Your task to perform on an android device: move a message to another label in the gmail app Image 0: 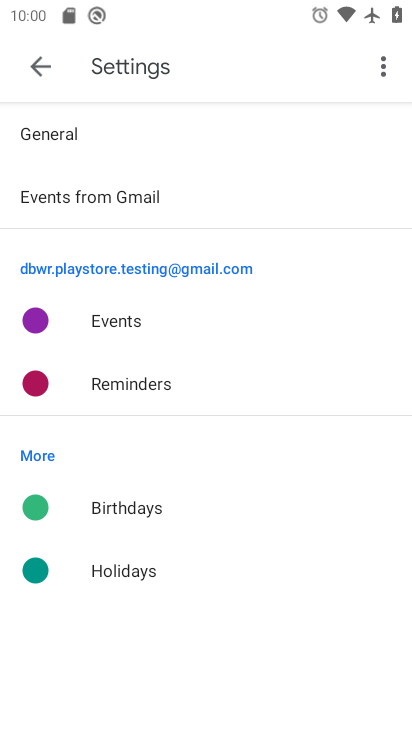
Step 0: press home button
Your task to perform on an android device: move a message to another label in the gmail app Image 1: 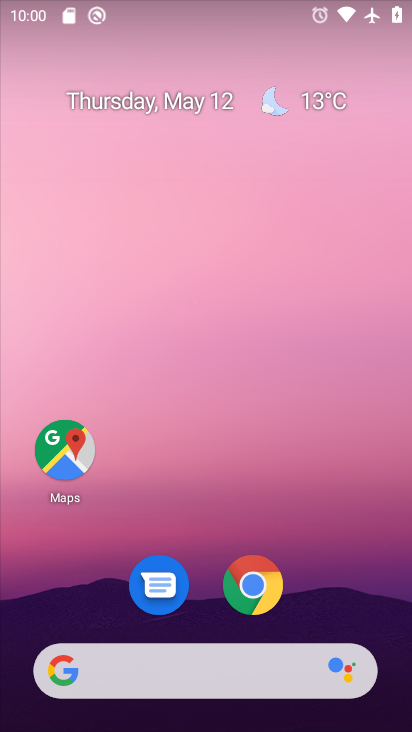
Step 1: drag from (206, 540) to (158, 54)
Your task to perform on an android device: move a message to another label in the gmail app Image 2: 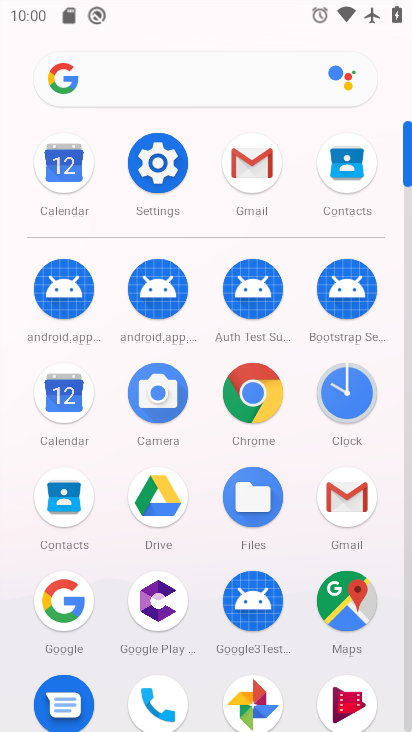
Step 2: click (242, 150)
Your task to perform on an android device: move a message to another label in the gmail app Image 3: 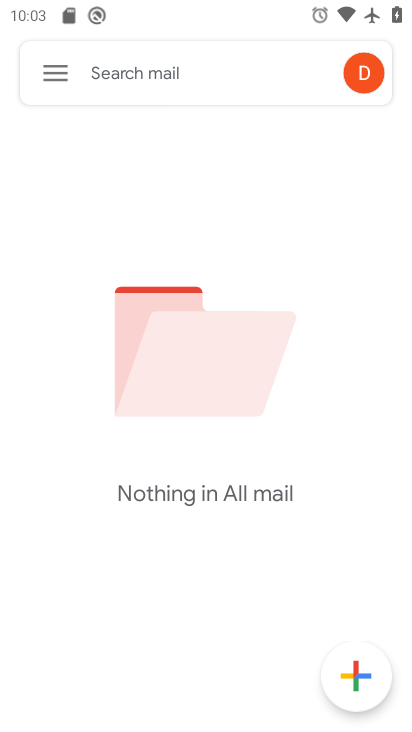
Step 3: task complete